Your task to perform on an android device: star an email in the gmail app Image 0: 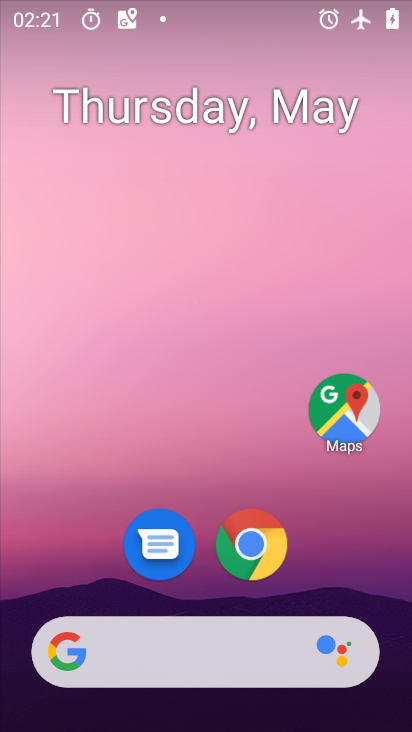
Step 0: drag from (339, 511) to (351, 382)
Your task to perform on an android device: star an email in the gmail app Image 1: 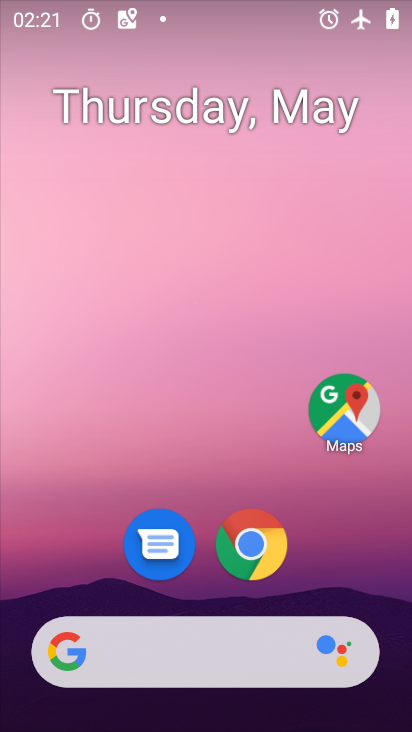
Step 1: drag from (365, 460) to (341, 198)
Your task to perform on an android device: star an email in the gmail app Image 2: 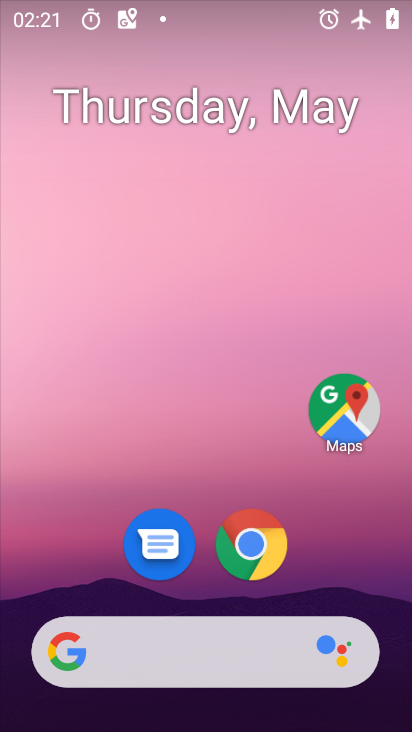
Step 2: drag from (324, 499) to (325, 124)
Your task to perform on an android device: star an email in the gmail app Image 3: 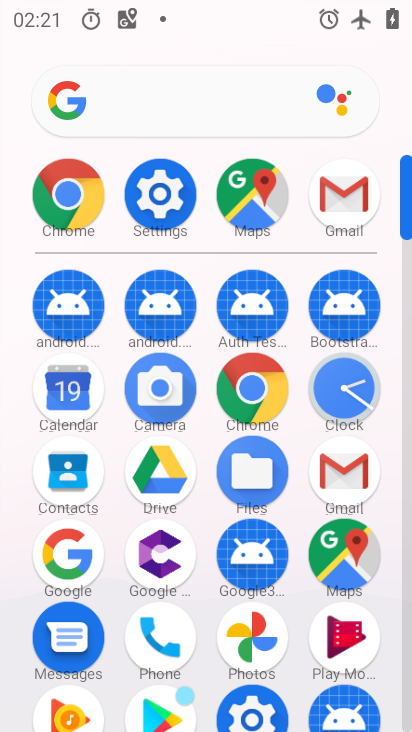
Step 3: click (337, 217)
Your task to perform on an android device: star an email in the gmail app Image 4: 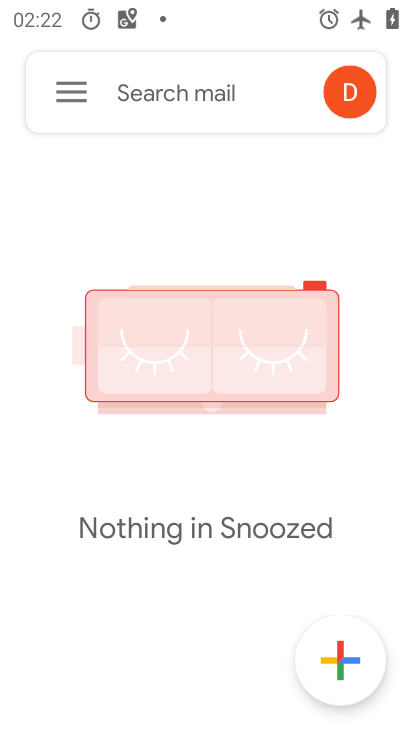
Step 4: click (76, 108)
Your task to perform on an android device: star an email in the gmail app Image 5: 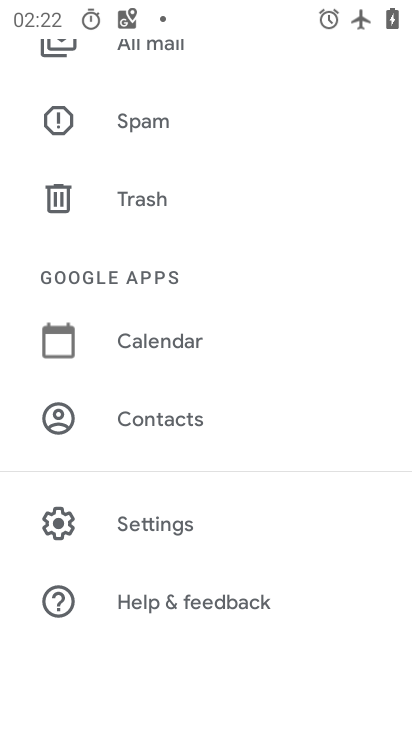
Step 5: drag from (274, 412) to (285, 324)
Your task to perform on an android device: star an email in the gmail app Image 6: 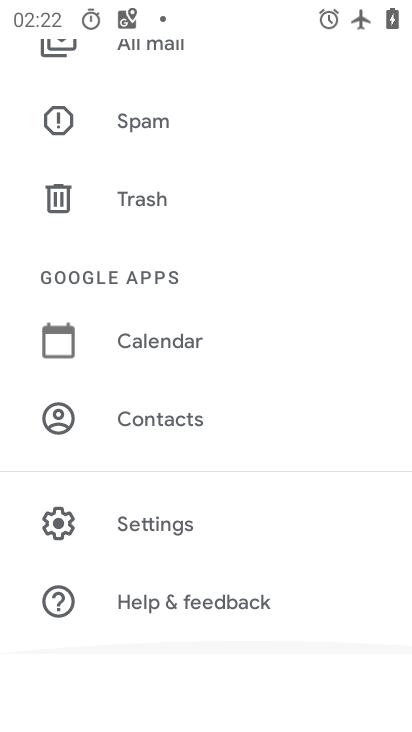
Step 6: drag from (298, 241) to (298, 383)
Your task to perform on an android device: star an email in the gmail app Image 7: 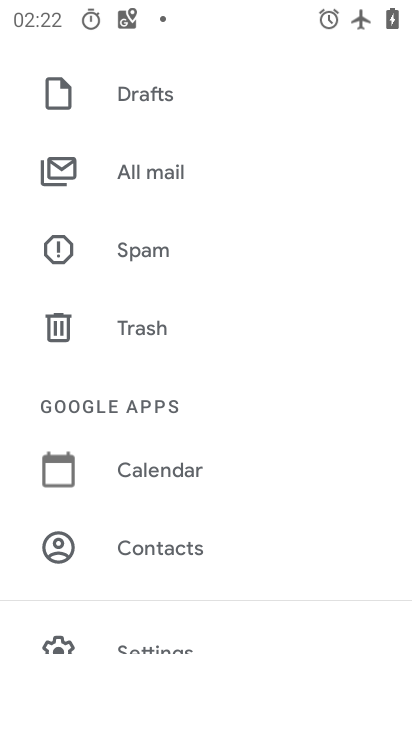
Step 7: drag from (300, 487) to (306, 380)
Your task to perform on an android device: star an email in the gmail app Image 8: 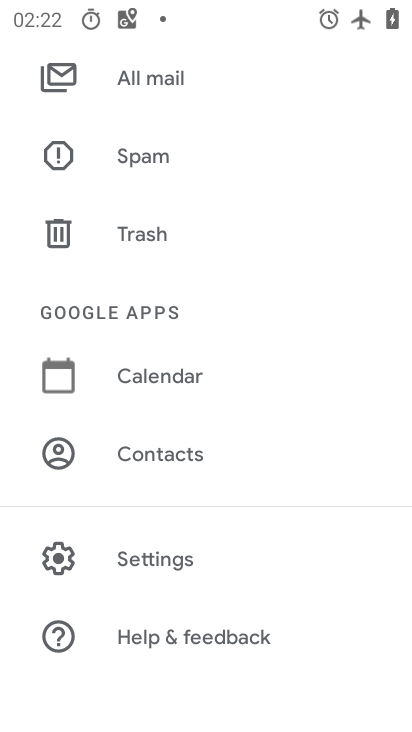
Step 8: click (318, 319)
Your task to perform on an android device: star an email in the gmail app Image 9: 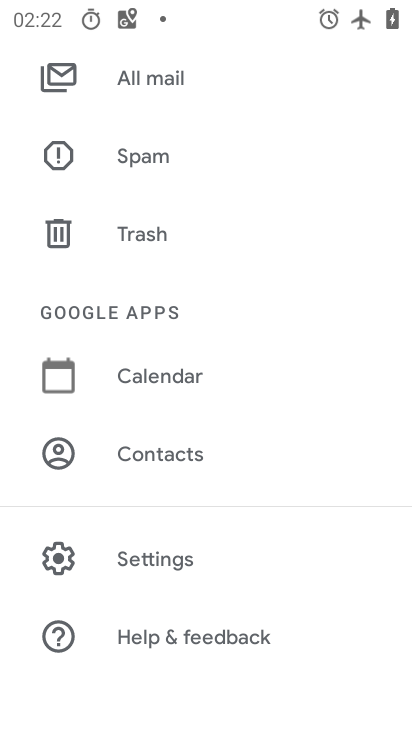
Step 9: drag from (318, 313) to (319, 393)
Your task to perform on an android device: star an email in the gmail app Image 10: 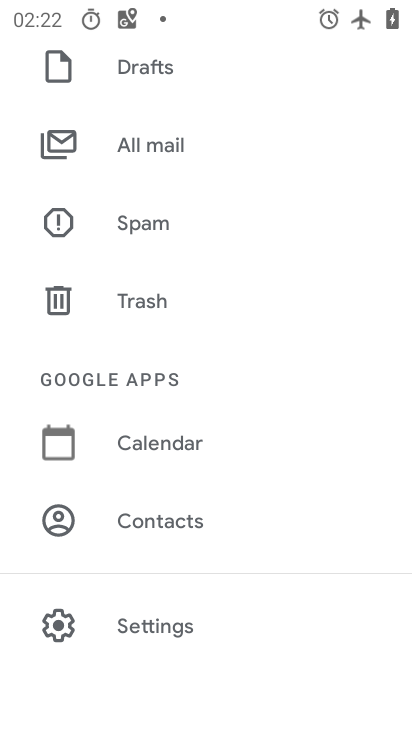
Step 10: click (315, 333)
Your task to perform on an android device: star an email in the gmail app Image 11: 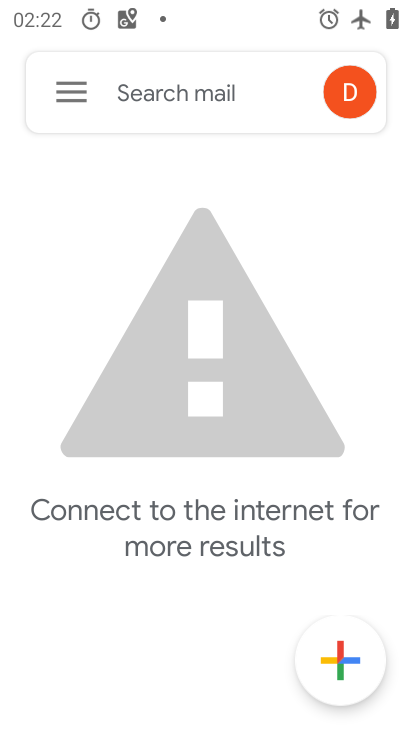
Step 11: task complete